Your task to perform on an android device: refresh tabs in the chrome app Image 0: 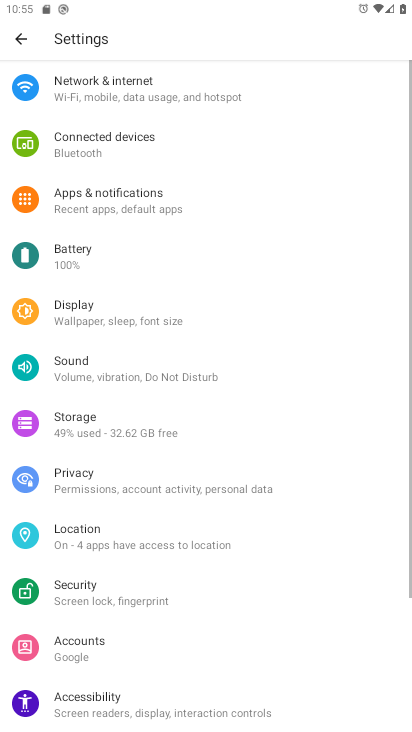
Step 0: press home button
Your task to perform on an android device: refresh tabs in the chrome app Image 1: 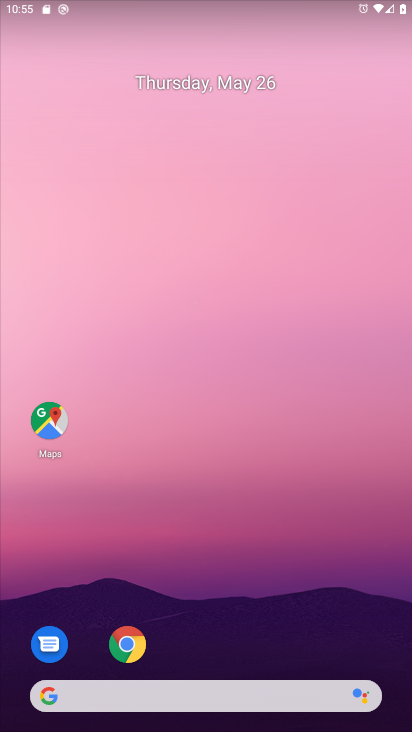
Step 1: drag from (348, 644) to (378, 222)
Your task to perform on an android device: refresh tabs in the chrome app Image 2: 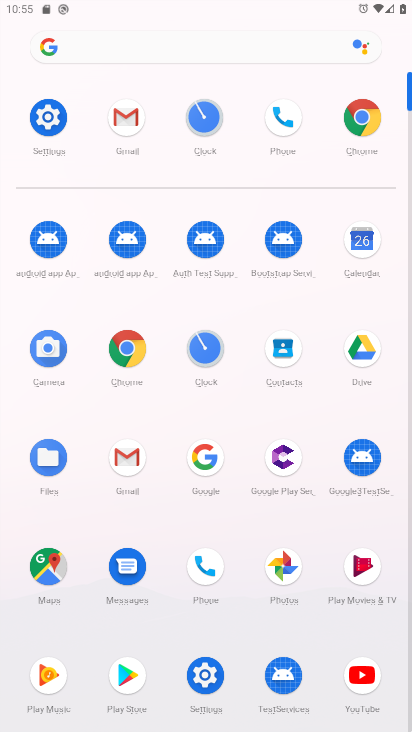
Step 2: click (139, 345)
Your task to perform on an android device: refresh tabs in the chrome app Image 3: 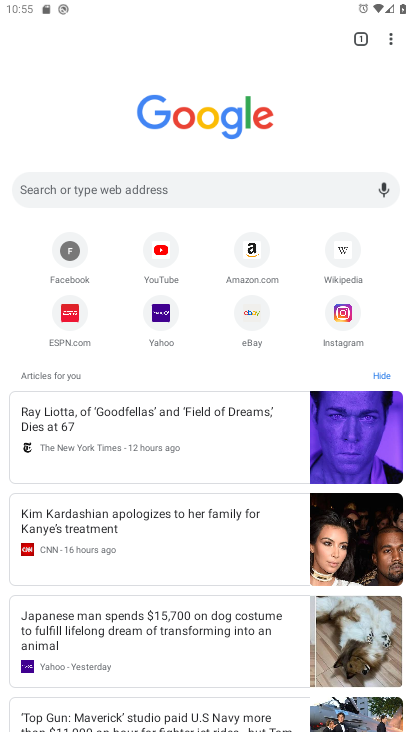
Step 3: click (390, 42)
Your task to perform on an android device: refresh tabs in the chrome app Image 4: 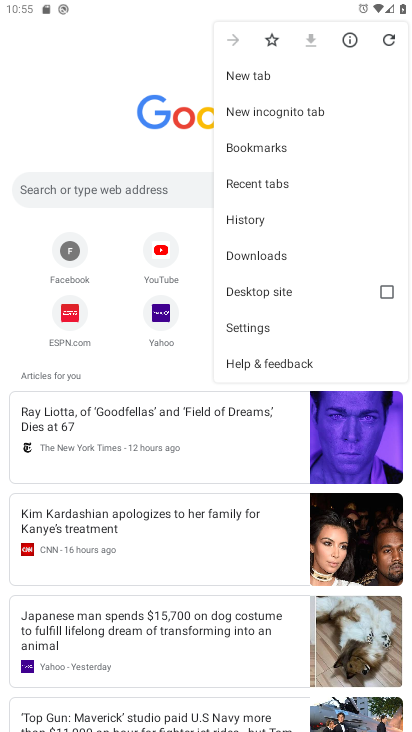
Step 4: click (390, 42)
Your task to perform on an android device: refresh tabs in the chrome app Image 5: 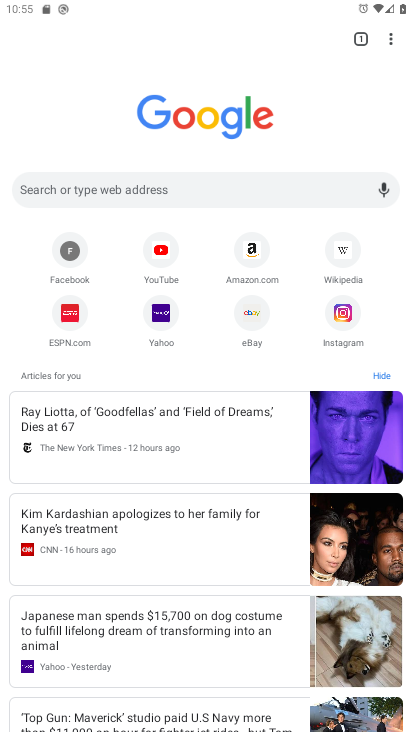
Step 5: task complete